Your task to perform on an android device: turn off data saver in the chrome app Image 0: 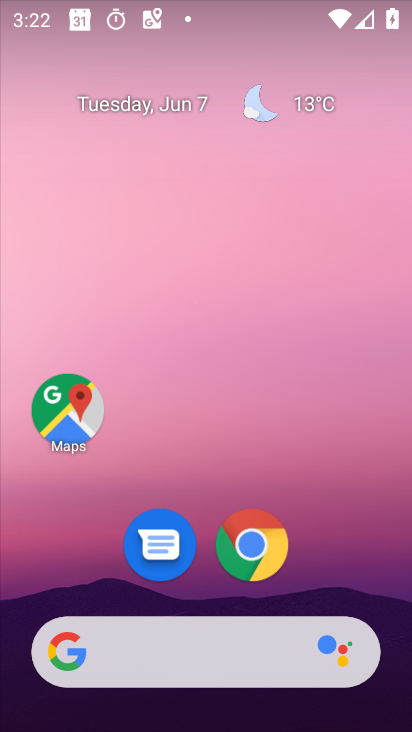
Step 0: click (253, 543)
Your task to perform on an android device: turn off data saver in the chrome app Image 1: 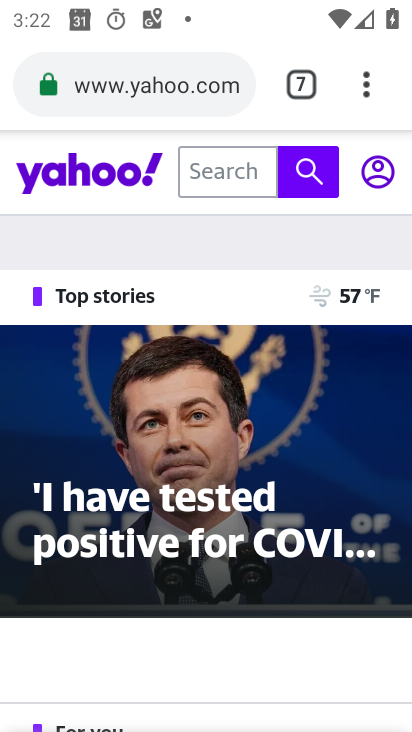
Step 1: click (361, 93)
Your task to perform on an android device: turn off data saver in the chrome app Image 2: 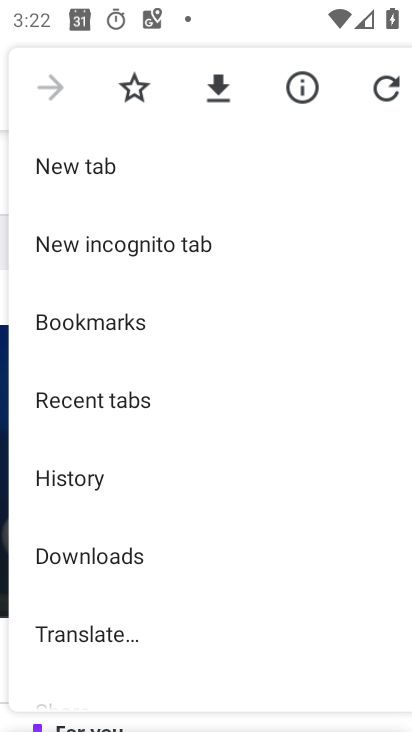
Step 2: drag from (230, 607) to (226, 24)
Your task to perform on an android device: turn off data saver in the chrome app Image 3: 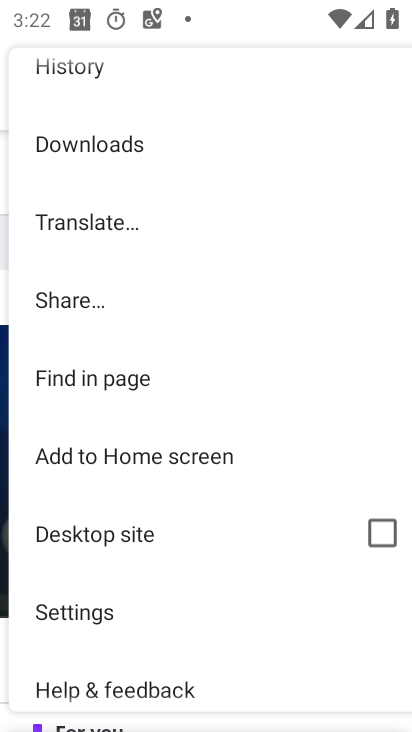
Step 3: click (146, 599)
Your task to perform on an android device: turn off data saver in the chrome app Image 4: 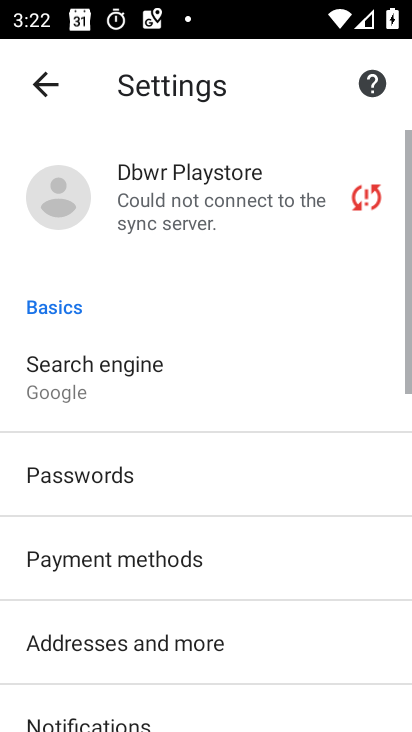
Step 4: drag from (206, 598) to (181, 1)
Your task to perform on an android device: turn off data saver in the chrome app Image 5: 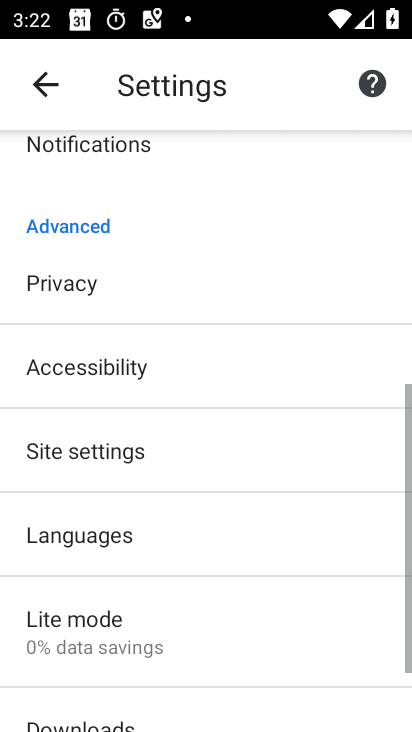
Step 5: click (166, 646)
Your task to perform on an android device: turn off data saver in the chrome app Image 6: 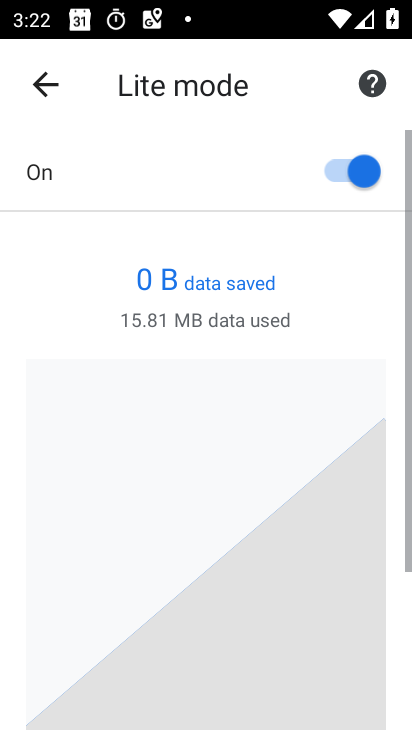
Step 6: click (360, 181)
Your task to perform on an android device: turn off data saver in the chrome app Image 7: 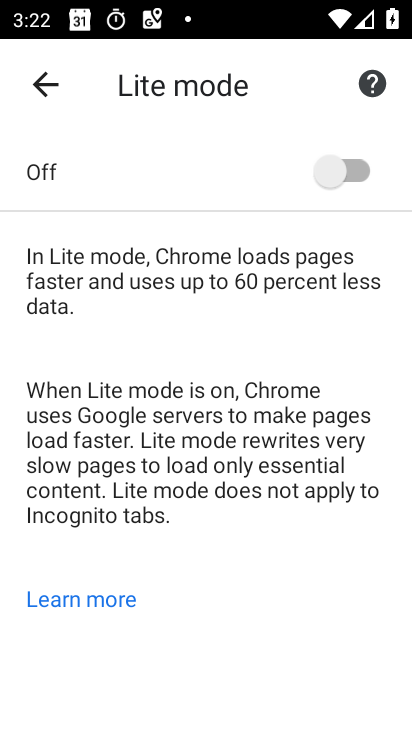
Step 7: task complete